Your task to perform on an android device: Open my contact list Image 0: 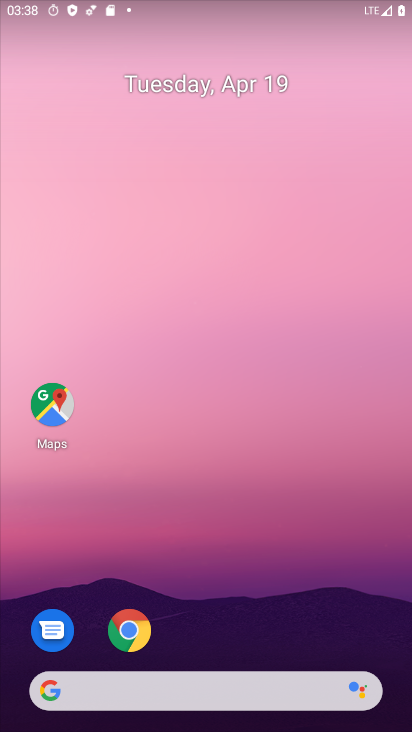
Step 0: drag from (272, 619) to (140, 61)
Your task to perform on an android device: Open my contact list Image 1: 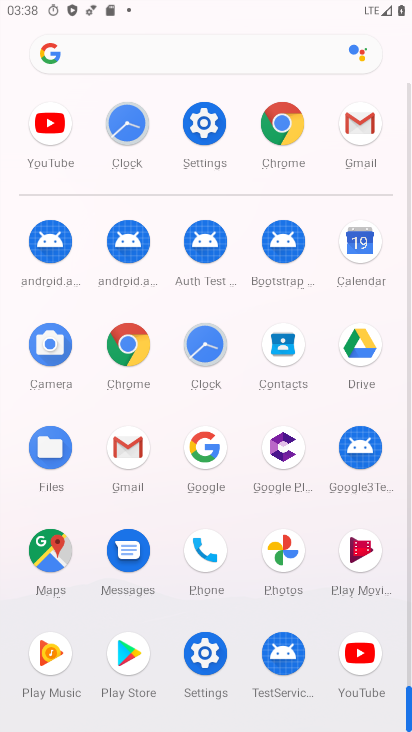
Step 1: click (288, 347)
Your task to perform on an android device: Open my contact list Image 2: 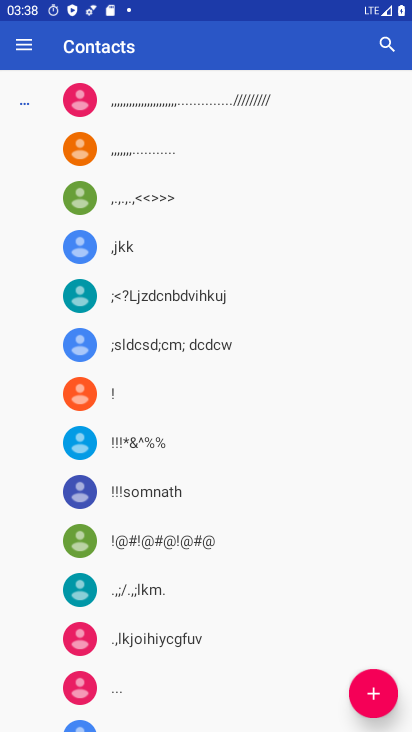
Step 2: task complete